Your task to perform on an android device: open a bookmark in the chrome app Image 0: 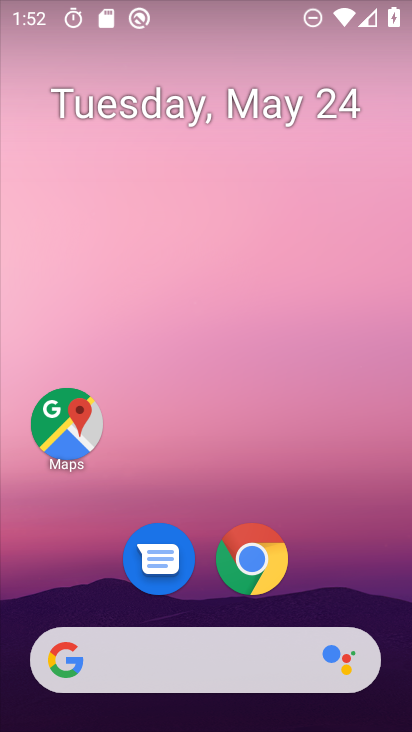
Step 0: drag from (387, 661) to (353, 293)
Your task to perform on an android device: open a bookmark in the chrome app Image 1: 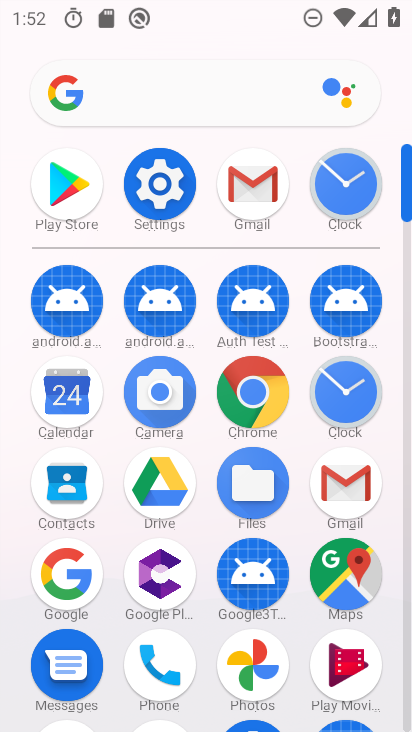
Step 1: click (260, 381)
Your task to perform on an android device: open a bookmark in the chrome app Image 2: 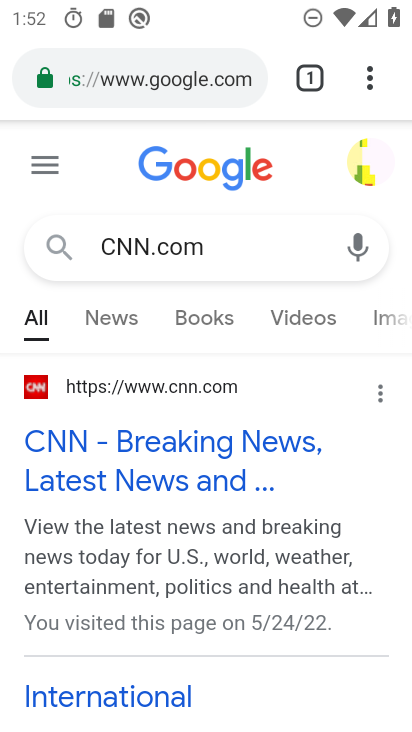
Step 2: click (372, 75)
Your task to perform on an android device: open a bookmark in the chrome app Image 3: 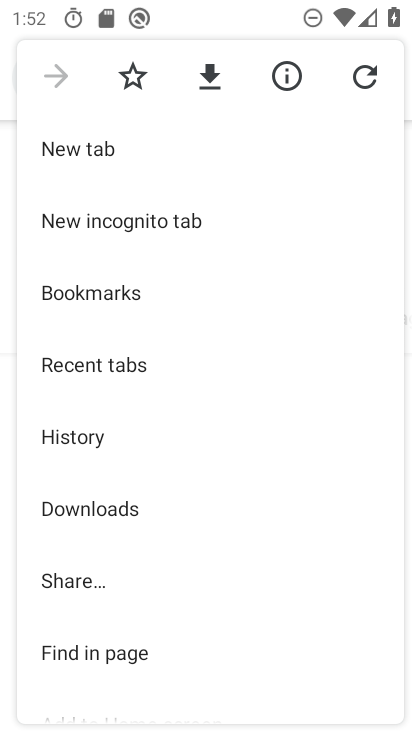
Step 3: drag from (224, 663) to (258, 303)
Your task to perform on an android device: open a bookmark in the chrome app Image 4: 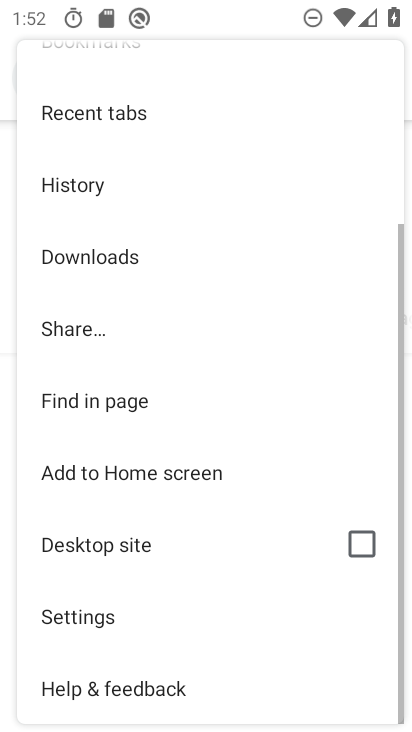
Step 4: drag from (247, 214) to (276, 668)
Your task to perform on an android device: open a bookmark in the chrome app Image 5: 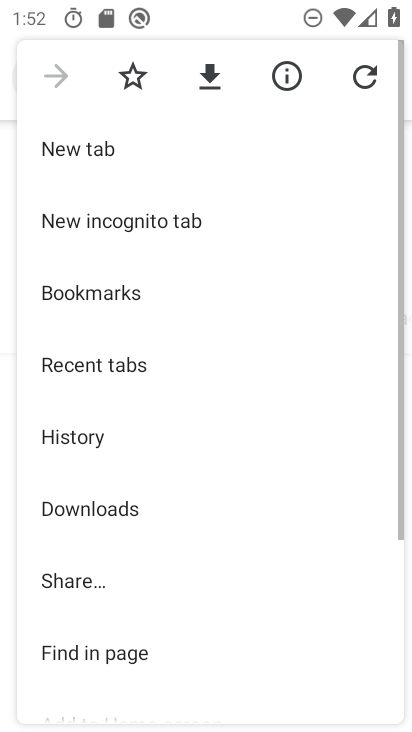
Step 5: click (98, 285)
Your task to perform on an android device: open a bookmark in the chrome app Image 6: 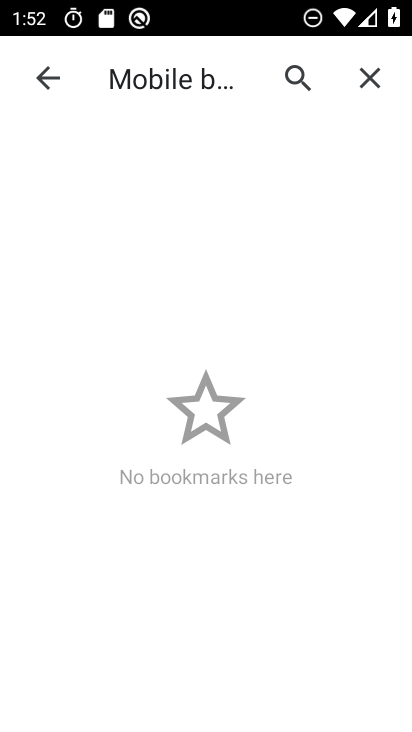
Step 6: task complete